Your task to perform on an android device: Open calendar and show me the second week of next month Image 0: 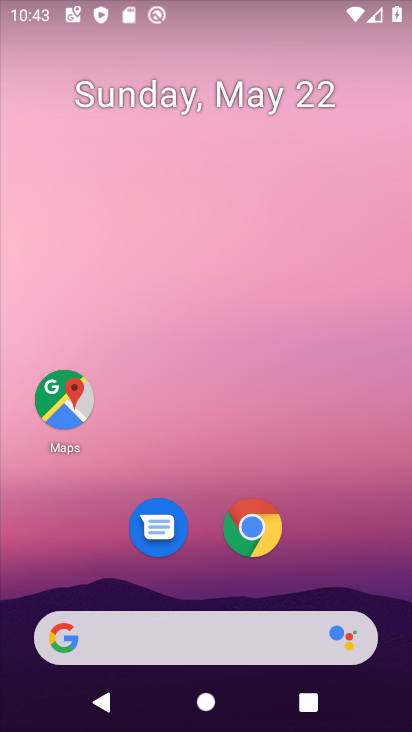
Step 0: drag from (352, 572) to (320, 61)
Your task to perform on an android device: Open calendar and show me the second week of next month Image 1: 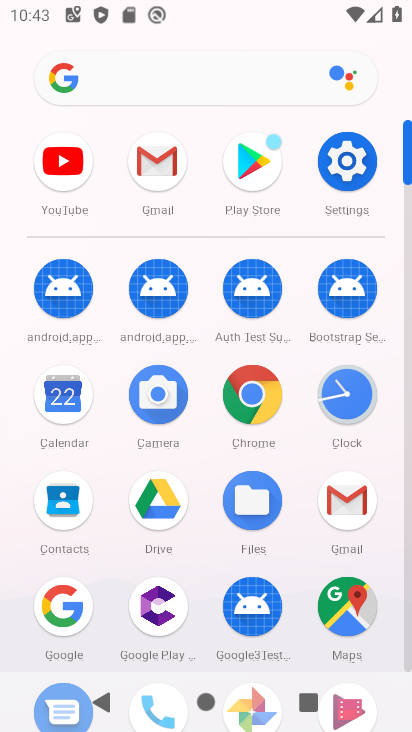
Step 1: click (65, 434)
Your task to perform on an android device: Open calendar and show me the second week of next month Image 2: 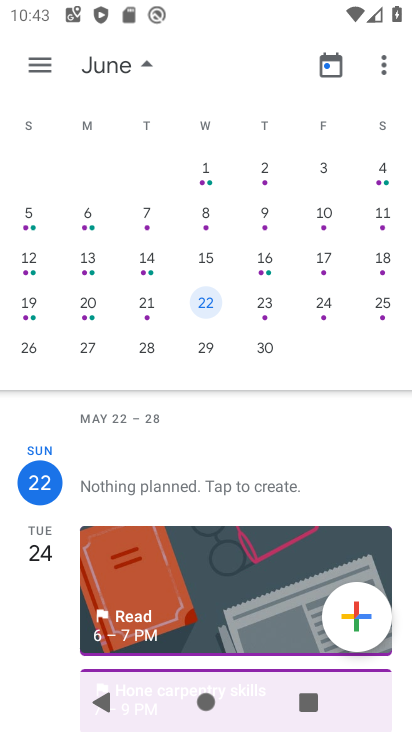
Step 2: click (358, 328)
Your task to perform on an android device: Open calendar and show me the second week of next month Image 3: 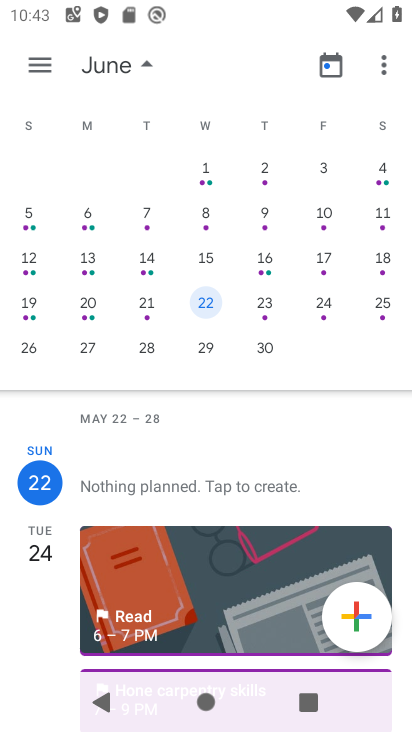
Step 3: click (205, 228)
Your task to perform on an android device: Open calendar and show me the second week of next month Image 4: 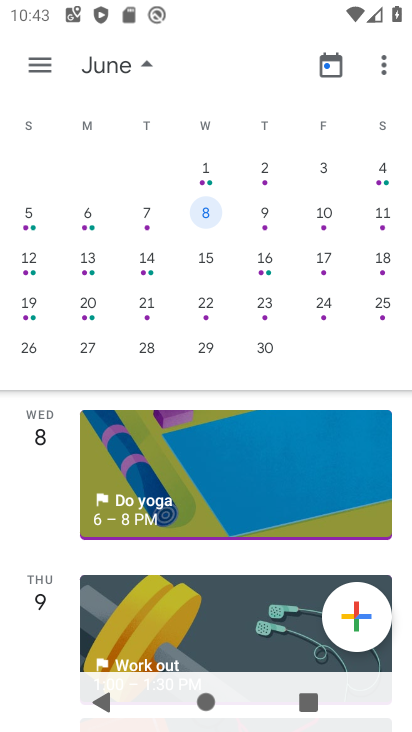
Step 4: task complete